Your task to perform on an android device: manage bookmarks in the chrome app Image 0: 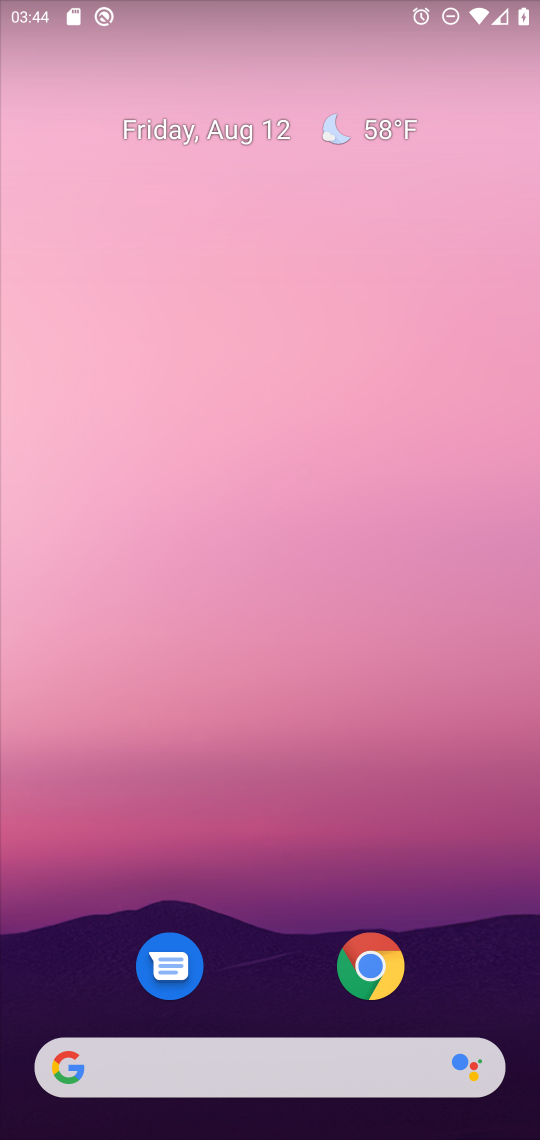
Step 0: press home button
Your task to perform on an android device: manage bookmarks in the chrome app Image 1: 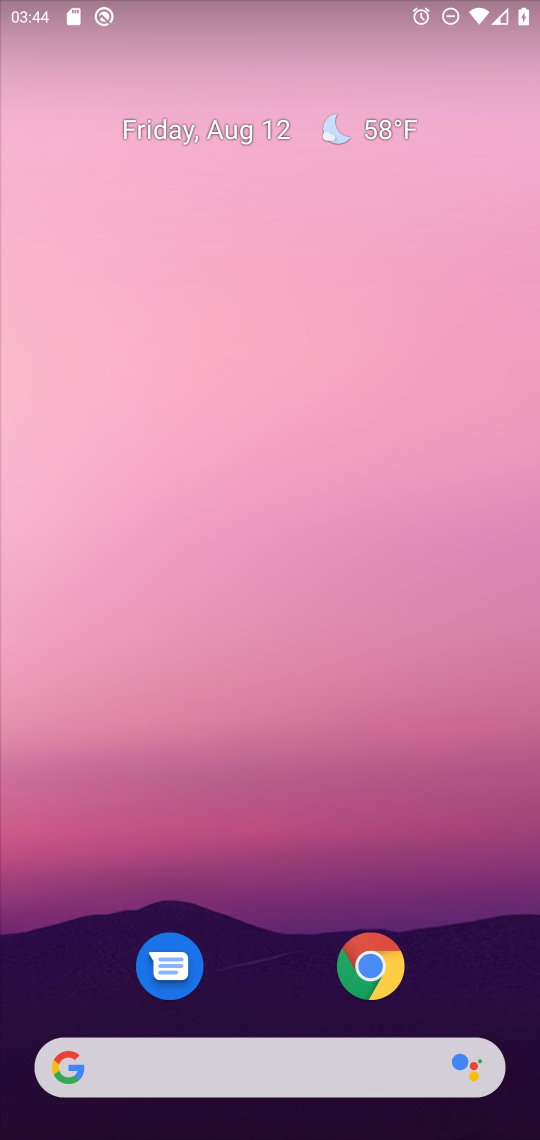
Step 1: drag from (311, 893) to (462, 230)
Your task to perform on an android device: manage bookmarks in the chrome app Image 2: 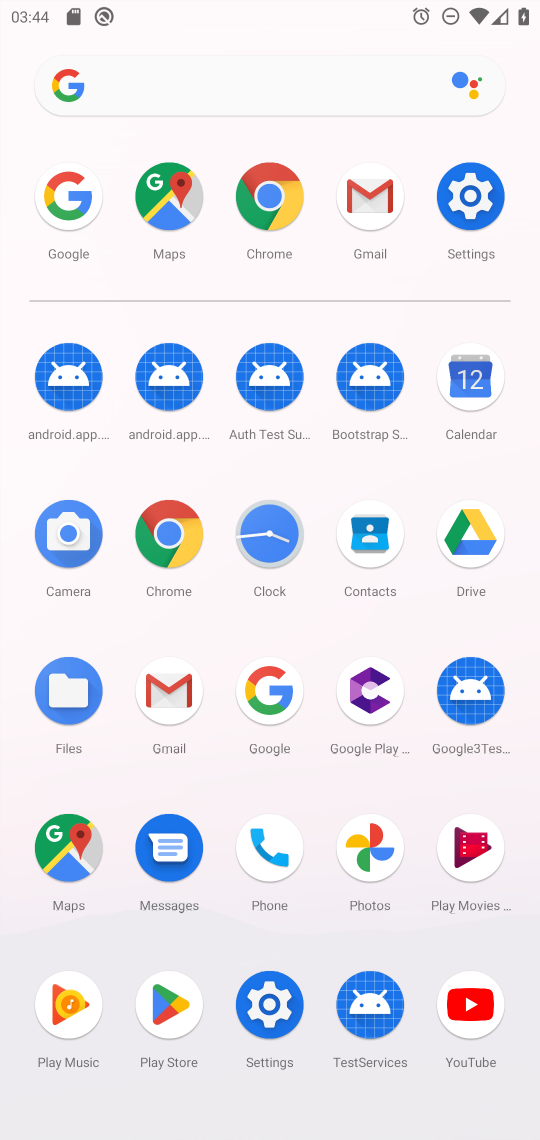
Step 2: click (172, 523)
Your task to perform on an android device: manage bookmarks in the chrome app Image 3: 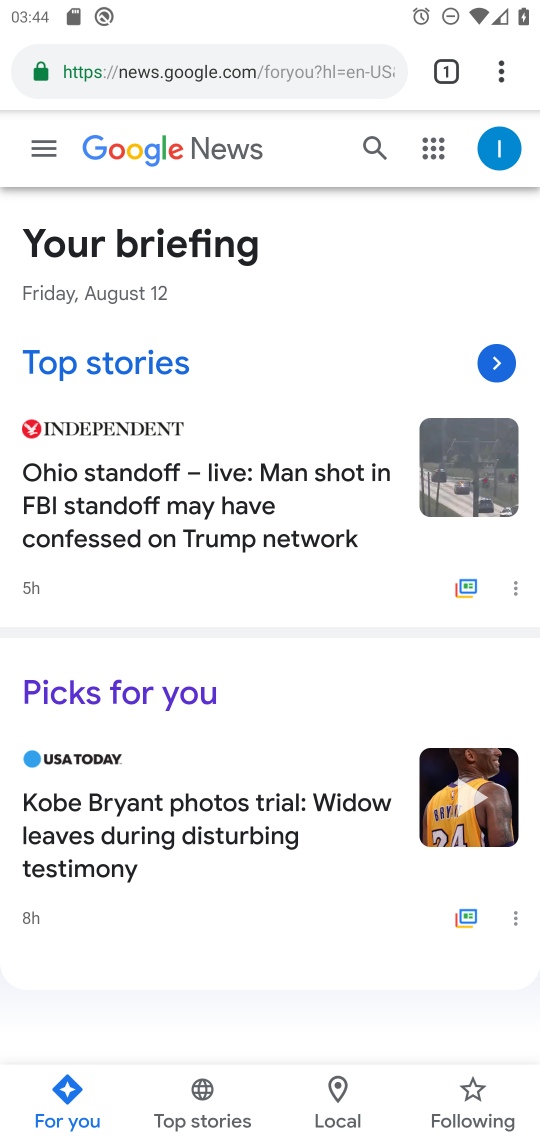
Step 3: drag from (495, 65) to (268, 295)
Your task to perform on an android device: manage bookmarks in the chrome app Image 4: 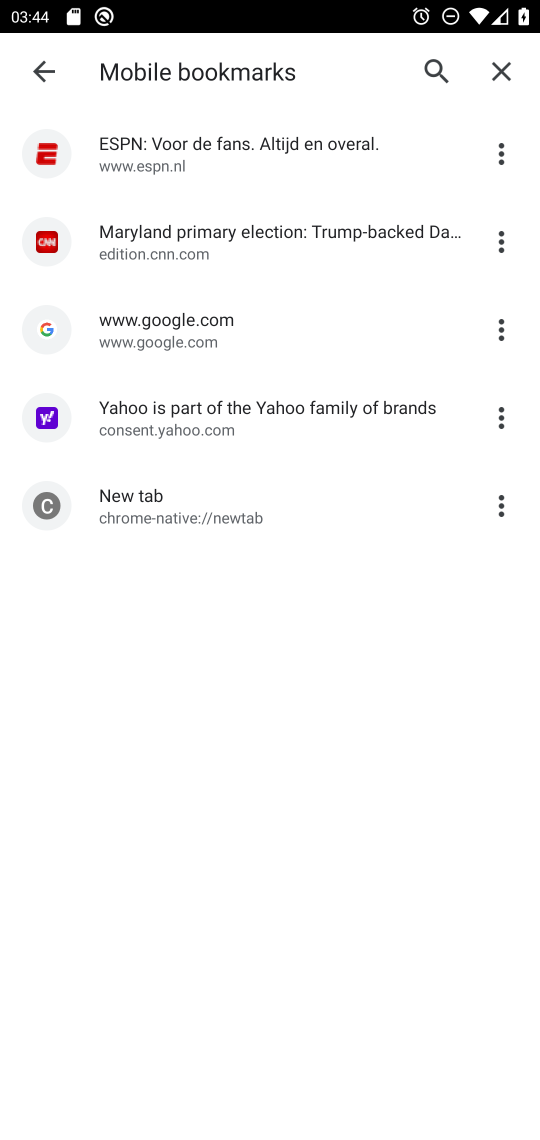
Step 4: click (509, 407)
Your task to perform on an android device: manage bookmarks in the chrome app Image 5: 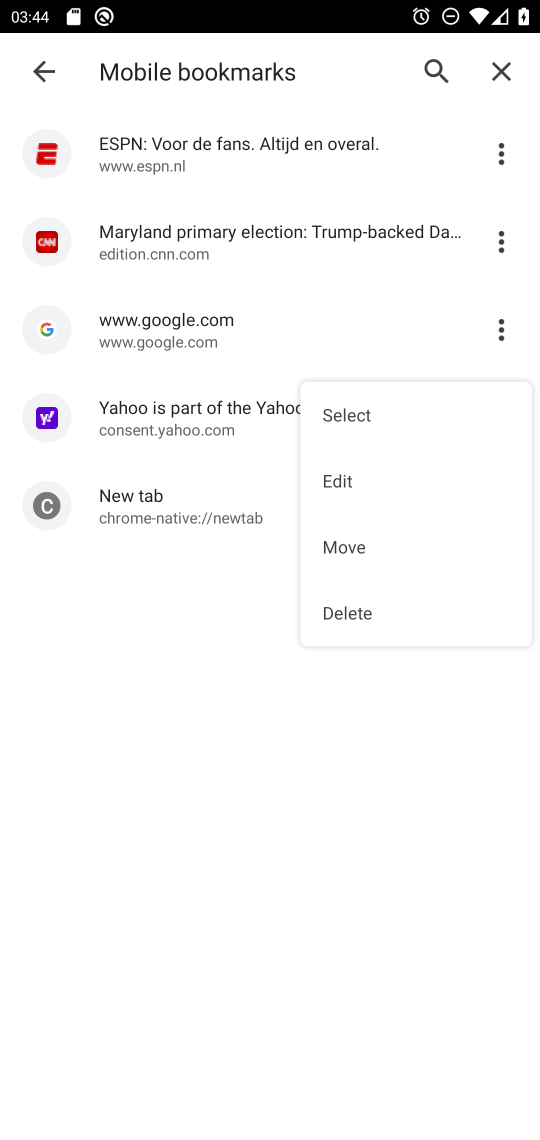
Step 5: click (356, 605)
Your task to perform on an android device: manage bookmarks in the chrome app Image 6: 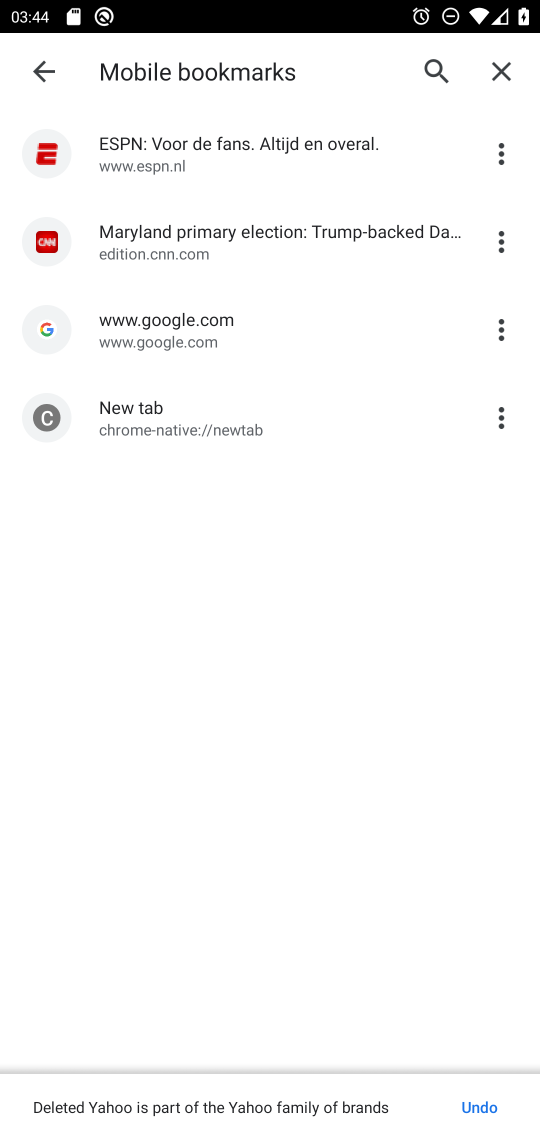
Step 6: task complete